Your task to perform on an android device: change alarm snooze length Image 0: 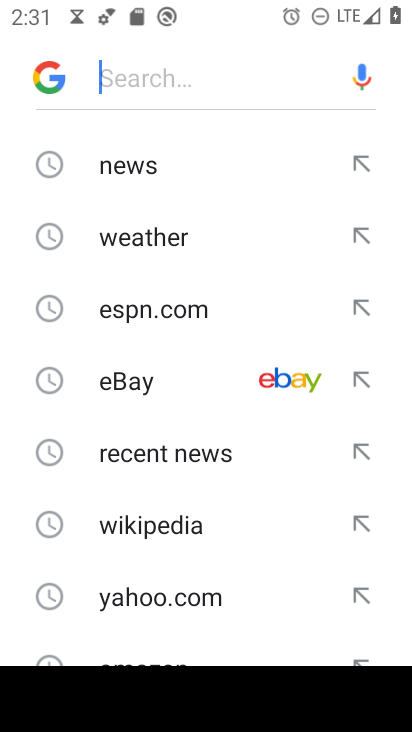
Step 0: press home button
Your task to perform on an android device: change alarm snooze length Image 1: 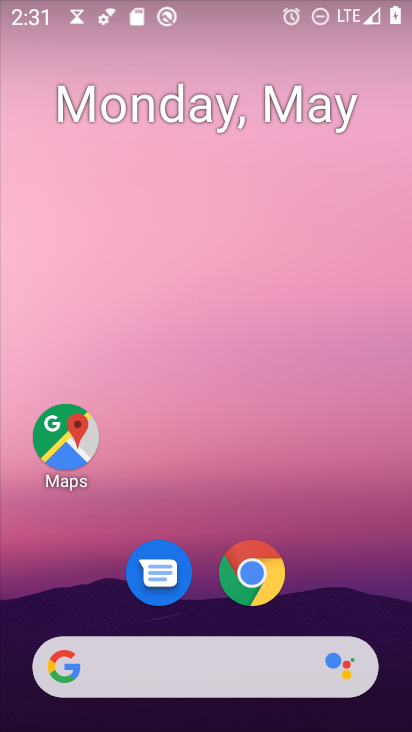
Step 1: drag from (300, 576) to (311, 41)
Your task to perform on an android device: change alarm snooze length Image 2: 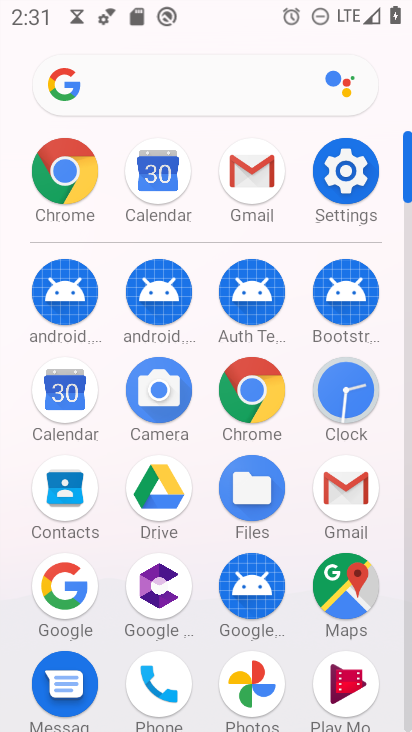
Step 2: drag from (331, 412) to (406, 412)
Your task to perform on an android device: change alarm snooze length Image 3: 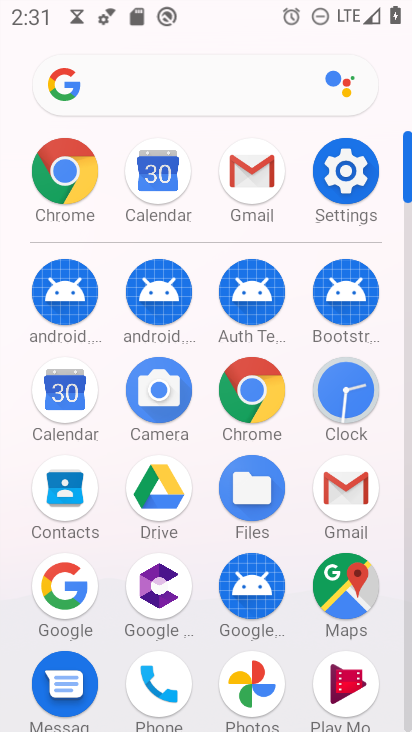
Step 3: click (359, 372)
Your task to perform on an android device: change alarm snooze length Image 4: 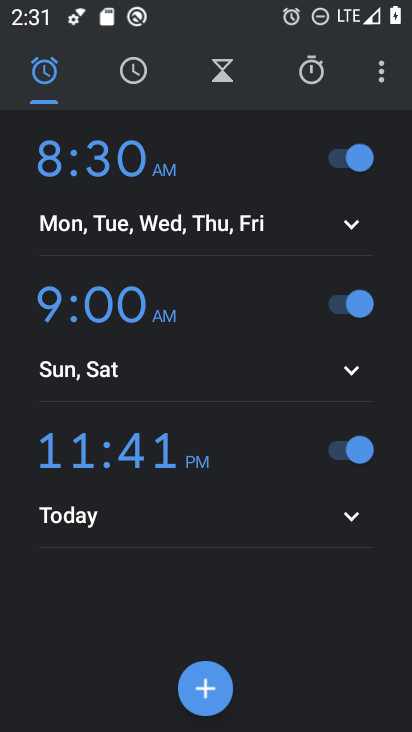
Step 4: click (382, 75)
Your task to perform on an android device: change alarm snooze length Image 5: 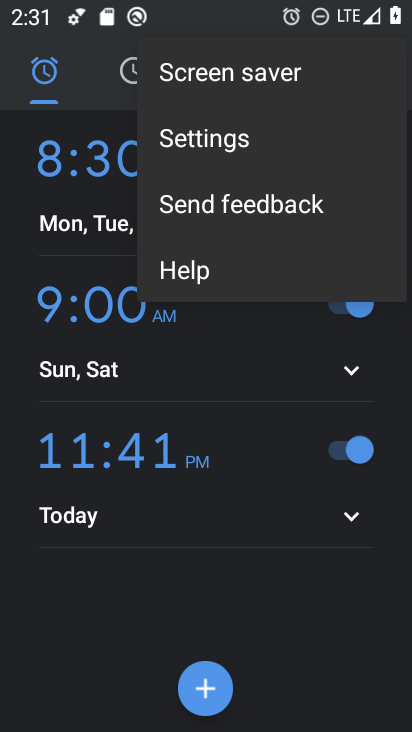
Step 5: click (218, 147)
Your task to perform on an android device: change alarm snooze length Image 6: 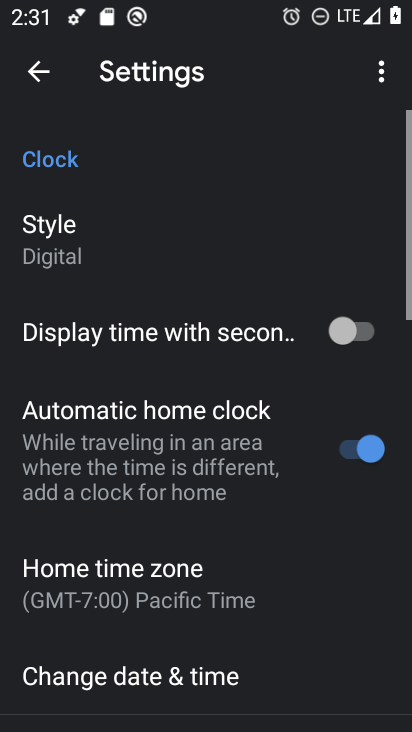
Step 6: drag from (249, 582) to (317, 7)
Your task to perform on an android device: change alarm snooze length Image 7: 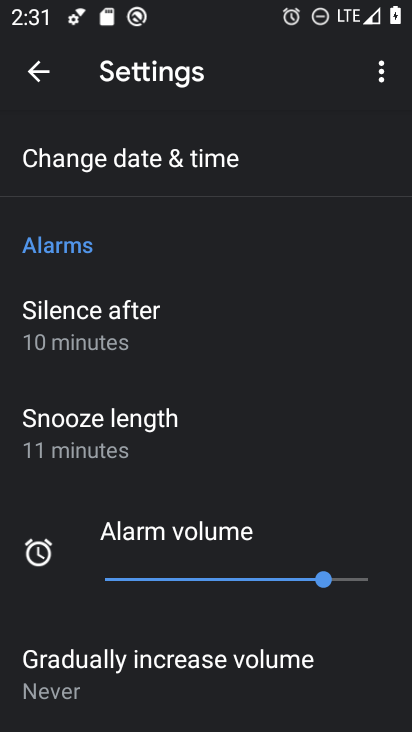
Step 7: click (174, 428)
Your task to perform on an android device: change alarm snooze length Image 8: 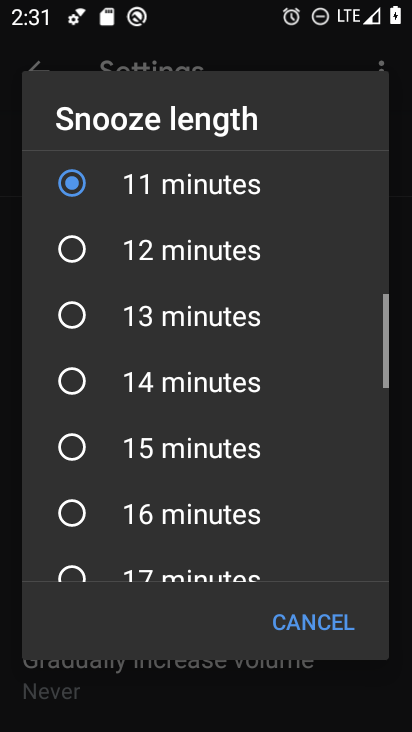
Step 8: click (149, 244)
Your task to perform on an android device: change alarm snooze length Image 9: 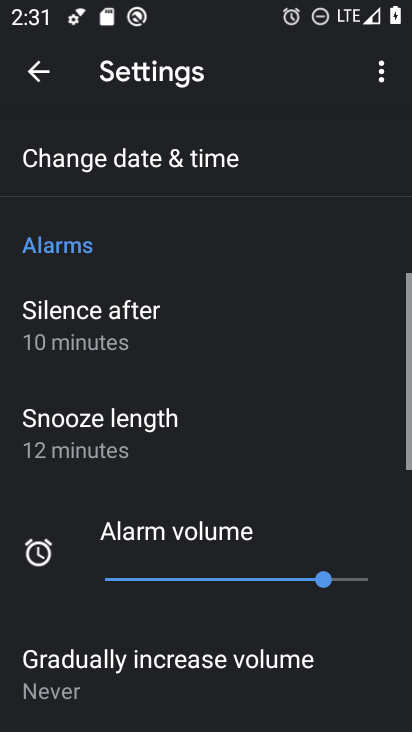
Step 9: task complete